Your task to perform on an android device: turn off wifi Image 0: 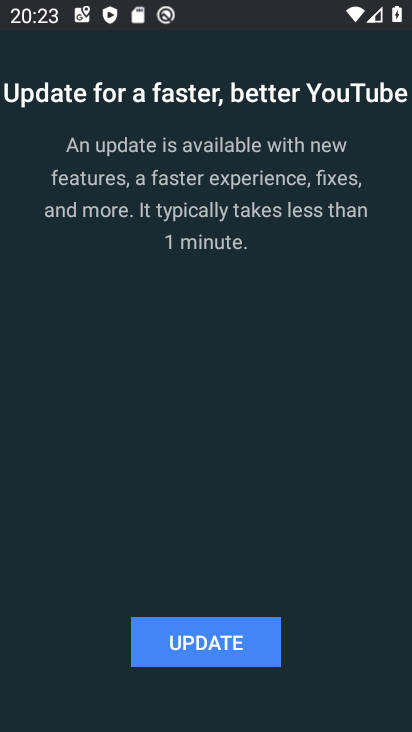
Step 0: press back button
Your task to perform on an android device: turn off wifi Image 1: 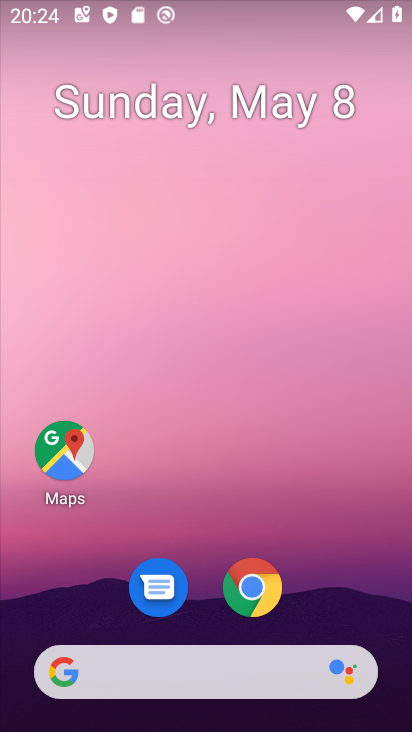
Step 1: drag from (288, 537) to (269, 4)
Your task to perform on an android device: turn off wifi Image 2: 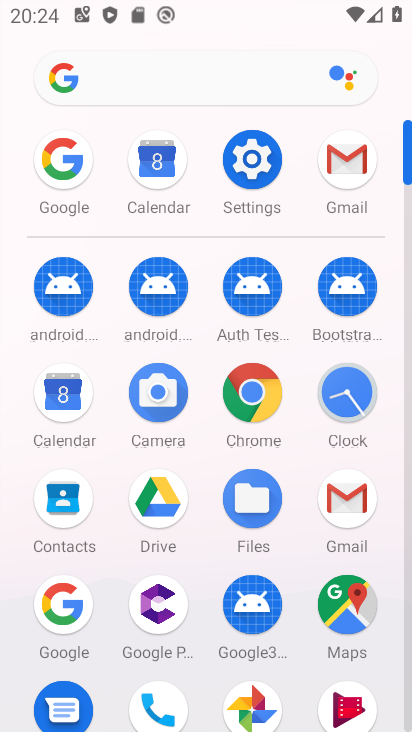
Step 2: click (251, 157)
Your task to perform on an android device: turn off wifi Image 3: 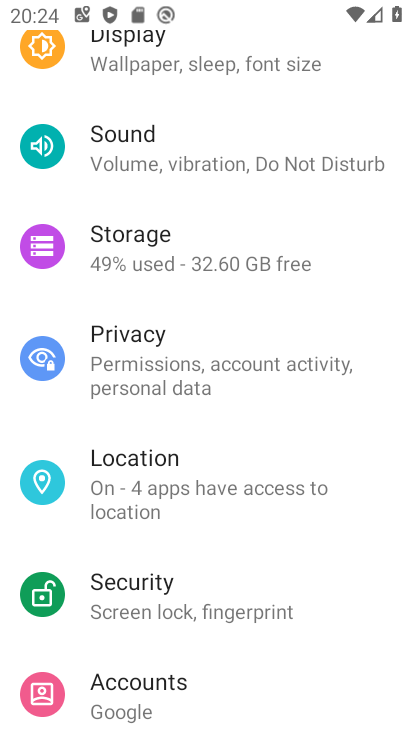
Step 3: drag from (222, 210) to (215, 336)
Your task to perform on an android device: turn off wifi Image 4: 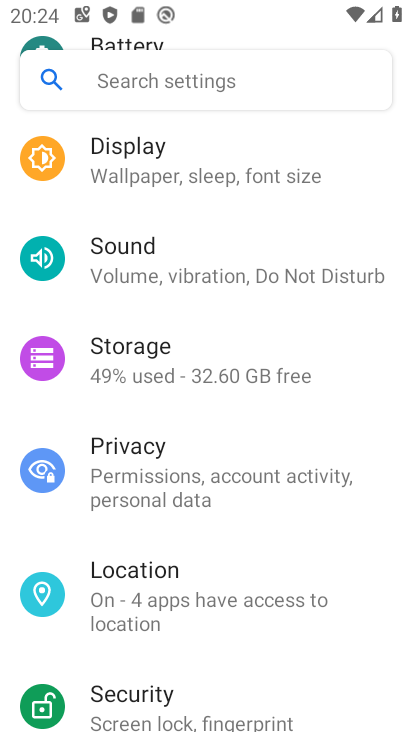
Step 4: drag from (201, 231) to (229, 372)
Your task to perform on an android device: turn off wifi Image 5: 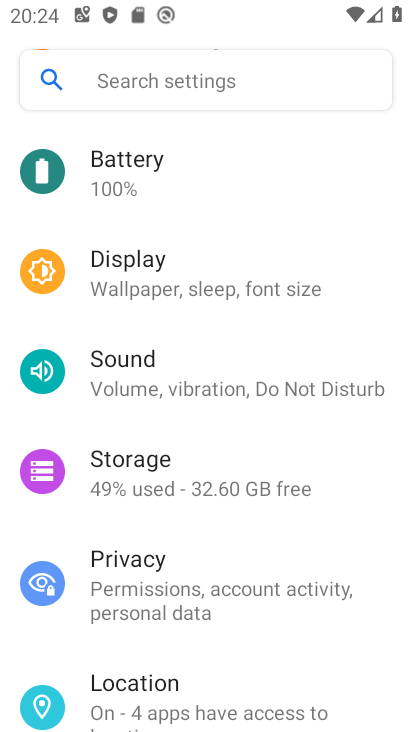
Step 5: drag from (196, 258) to (271, 403)
Your task to perform on an android device: turn off wifi Image 6: 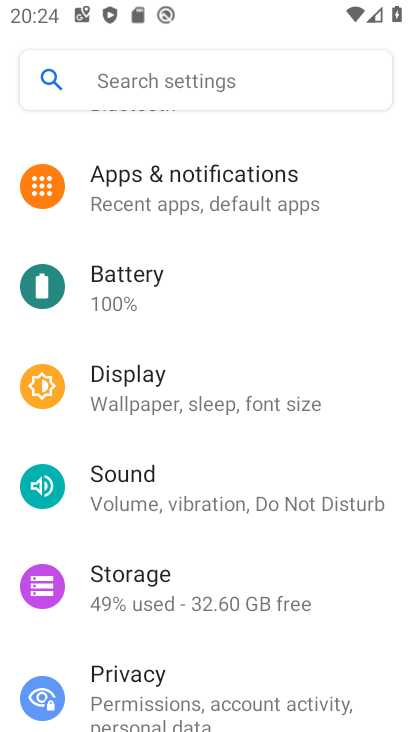
Step 6: drag from (186, 240) to (239, 351)
Your task to perform on an android device: turn off wifi Image 7: 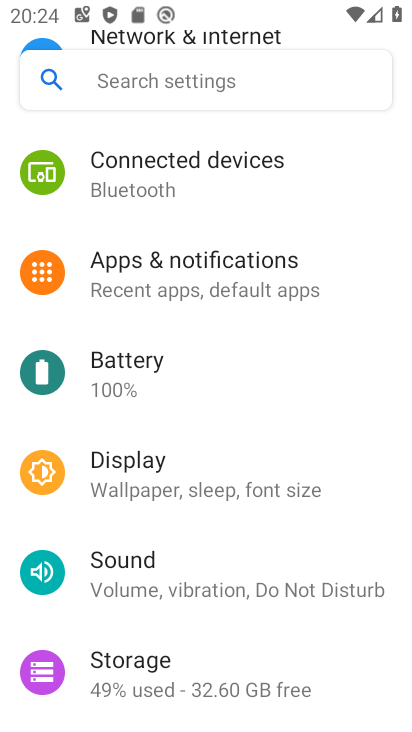
Step 7: drag from (217, 222) to (242, 362)
Your task to perform on an android device: turn off wifi Image 8: 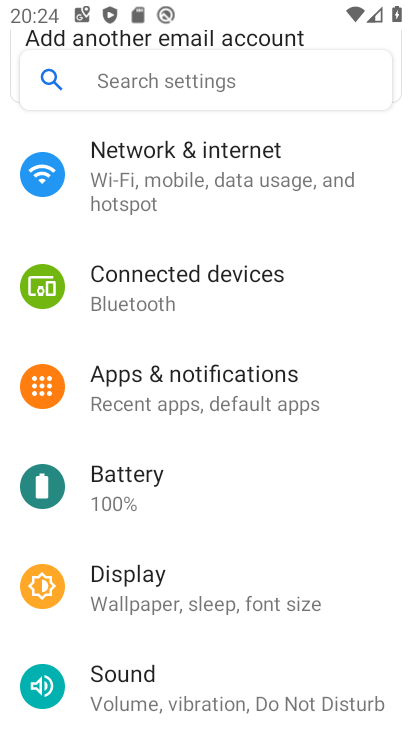
Step 8: drag from (213, 260) to (238, 380)
Your task to perform on an android device: turn off wifi Image 9: 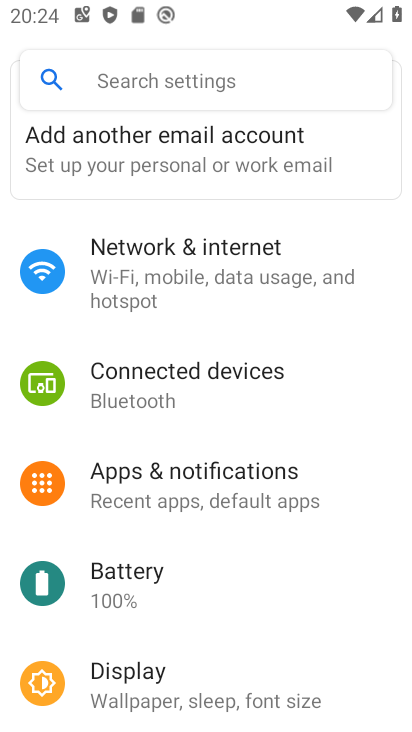
Step 9: click (171, 246)
Your task to perform on an android device: turn off wifi Image 10: 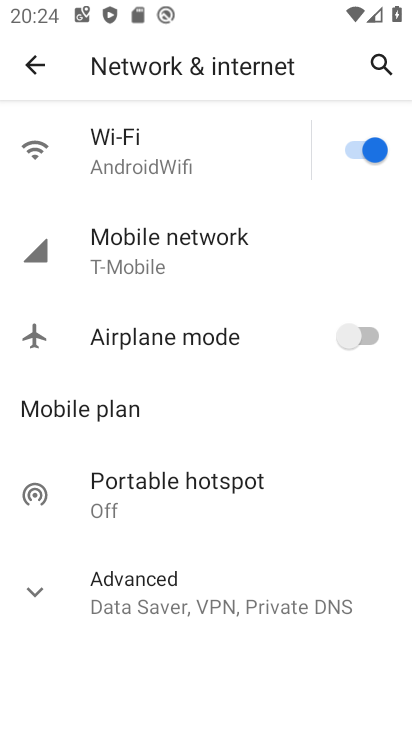
Step 10: click (372, 145)
Your task to perform on an android device: turn off wifi Image 11: 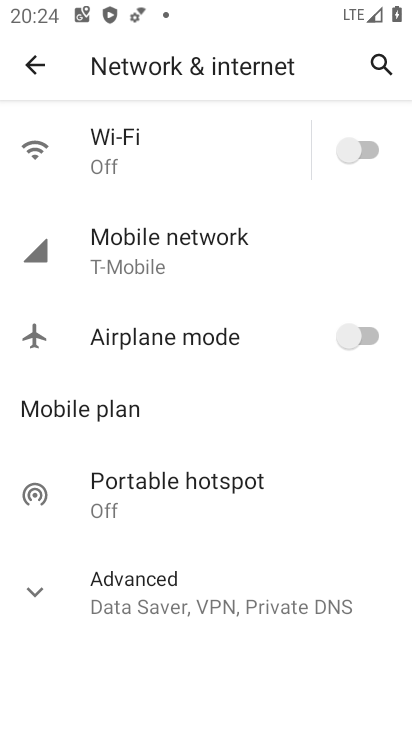
Step 11: task complete